Your task to perform on an android device: Open maps Image 0: 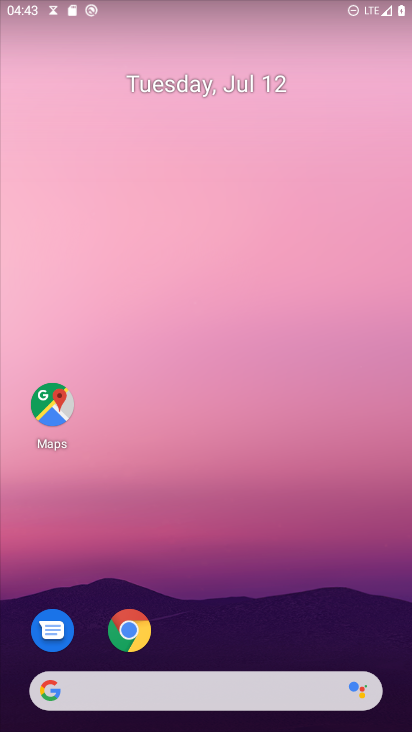
Step 0: drag from (350, 646) to (383, 47)
Your task to perform on an android device: Open maps Image 1: 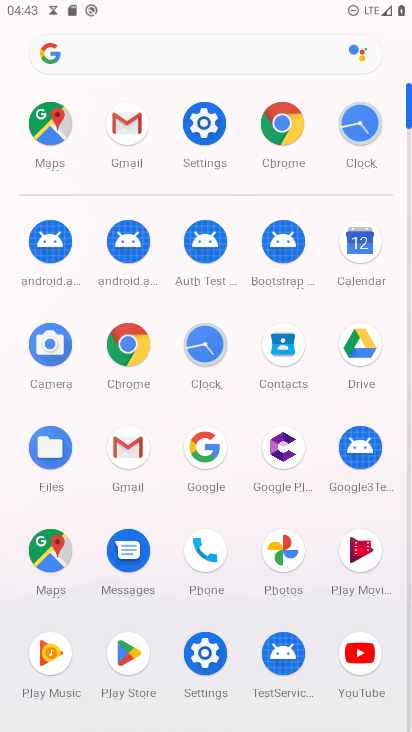
Step 1: click (56, 548)
Your task to perform on an android device: Open maps Image 2: 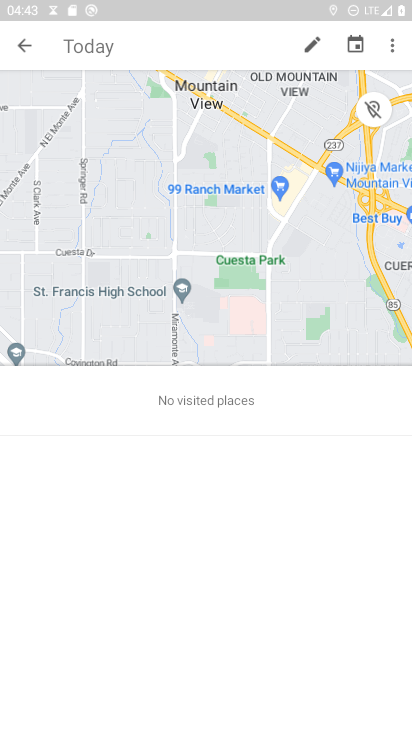
Step 2: task complete